Your task to perform on an android device: change alarm snooze length Image 0: 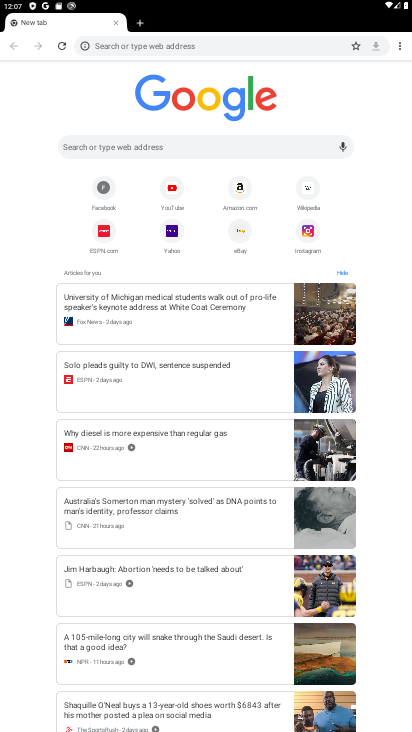
Step 0: press home button
Your task to perform on an android device: change alarm snooze length Image 1: 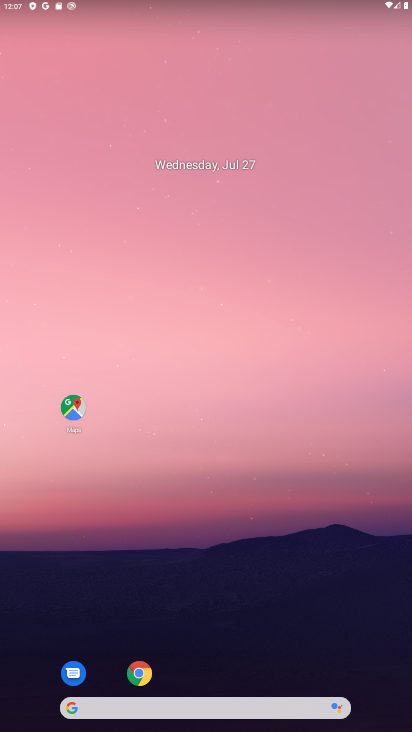
Step 1: drag from (207, 631) to (204, 15)
Your task to perform on an android device: change alarm snooze length Image 2: 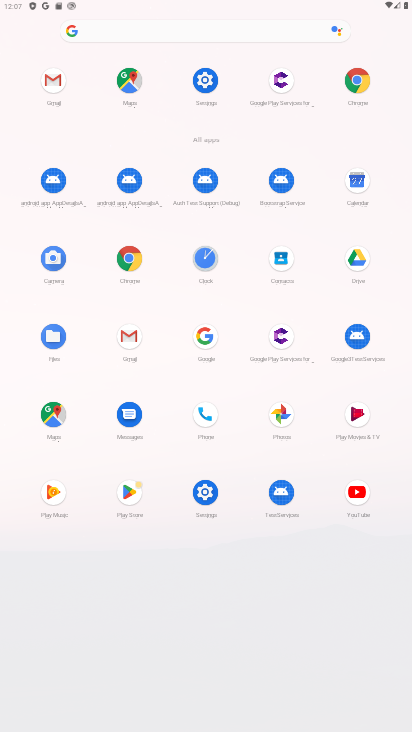
Step 2: click (196, 252)
Your task to perform on an android device: change alarm snooze length Image 3: 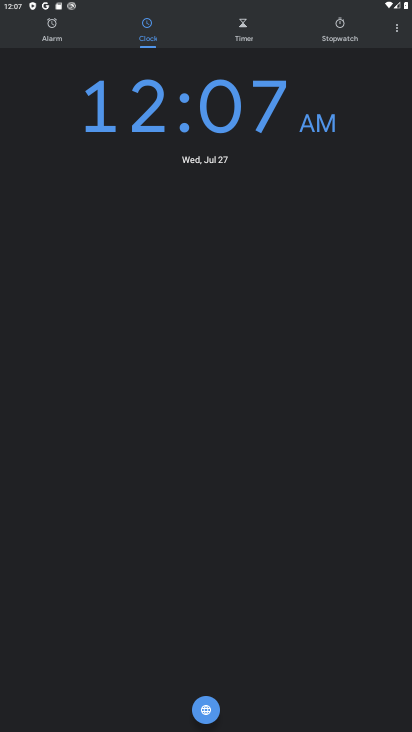
Step 3: click (402, 37)
Your task to perform on an android device: change alarm snooze length Image 4: 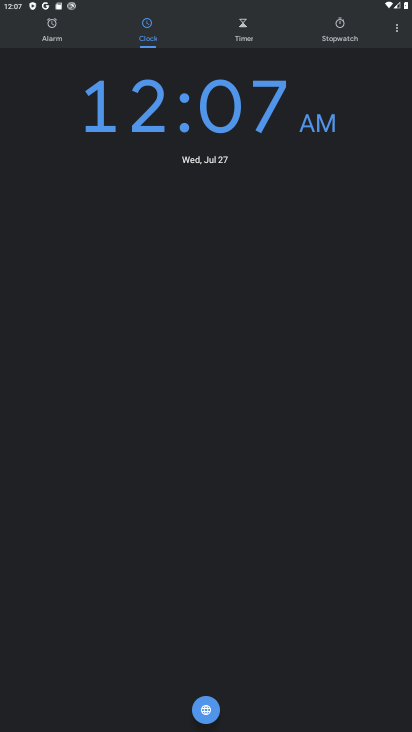
Step 4: click (402, 37)
Your task to perform on an android device: change alarm snooze length Image 5: 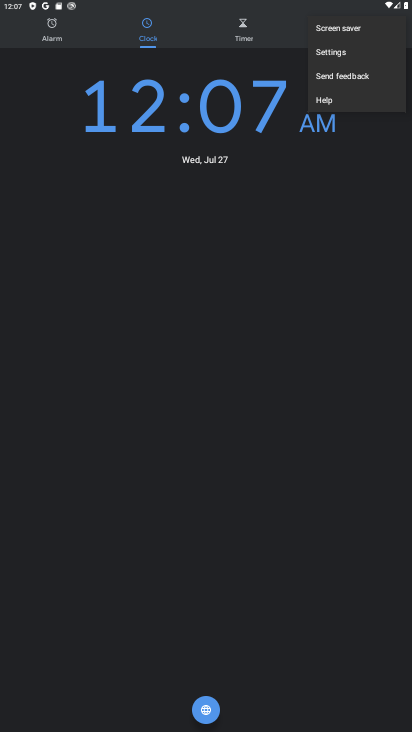
Step 5: click (346, 59)
Your task to perform on an android device: change alarm snooze length Image 6: 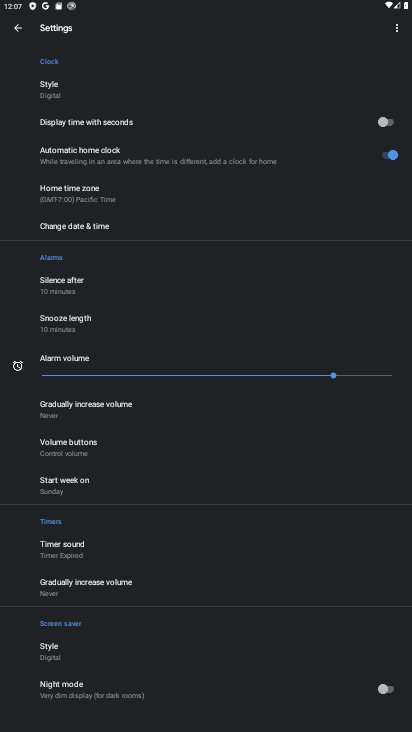
Step 6: click (58, 322)
Your task to perform on an android device: change alarm snooze length Image 7: 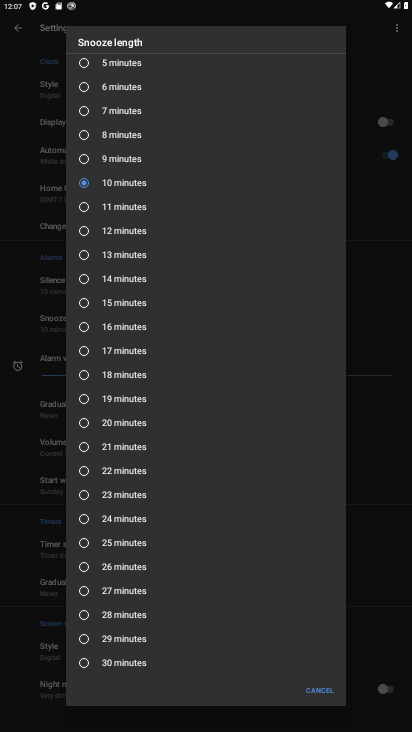
Step 7: click (88, 91)
Your task to perform on an android device: change alarm snooze length Image 8: 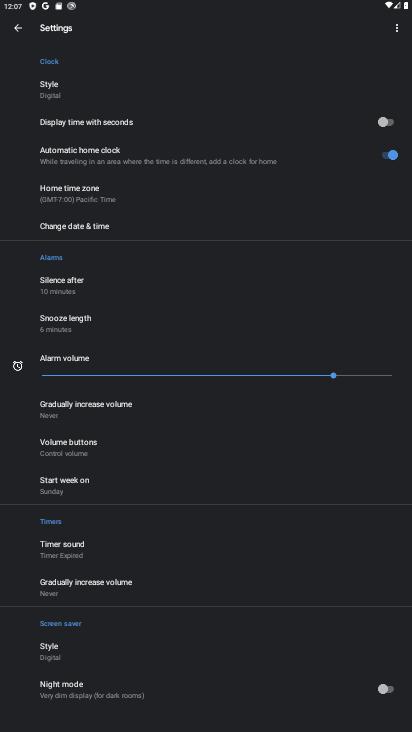
Step 8: task complete